Your task to perform on an android device: Open the web browser Image 0: 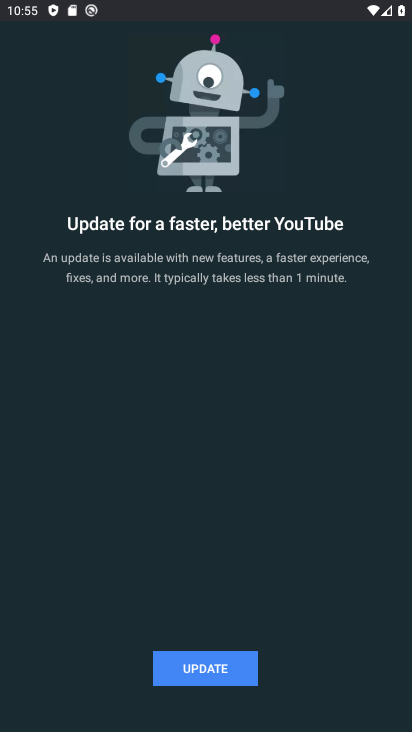
Step 0: press home button
Your task to perform on an android device: Open the web browser Image 1: 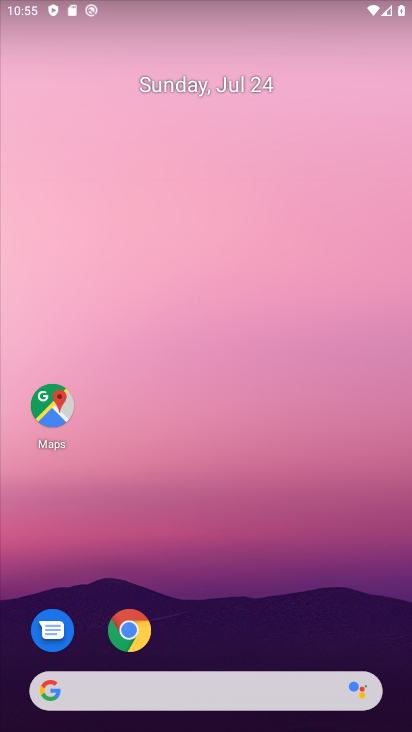
Step 1: drag from (195, 454) to (193, 54)
Your task to perform on an android device: Open the web browser Image 2: 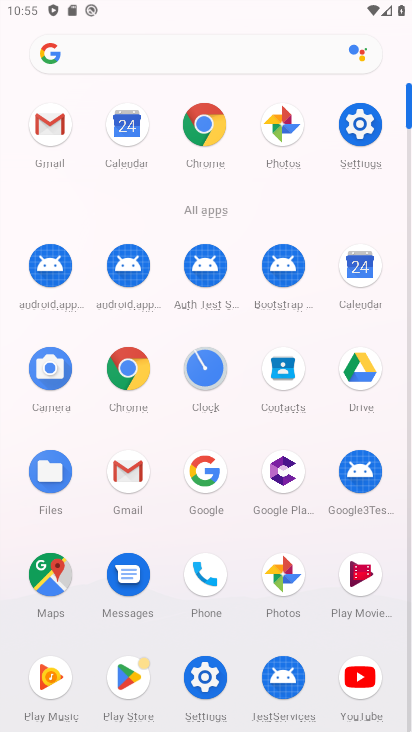
Step 2: click (208, 143)
Your task to perform on an android device: Open the web browser Image 3: 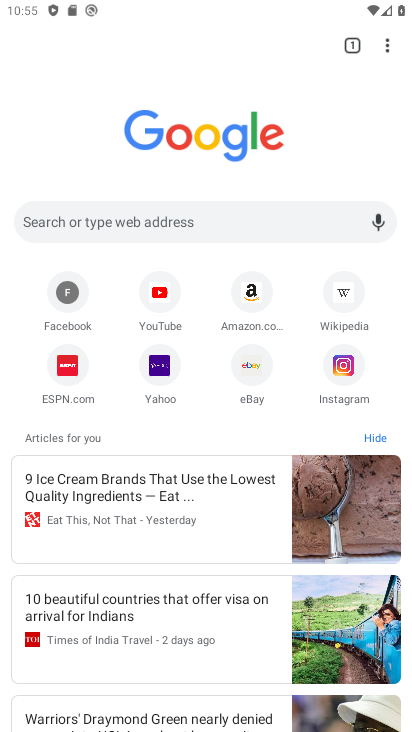
Step 3: task complete